Your task to perform on an android device: open chrome and create a bookmark for the current page Image 0: 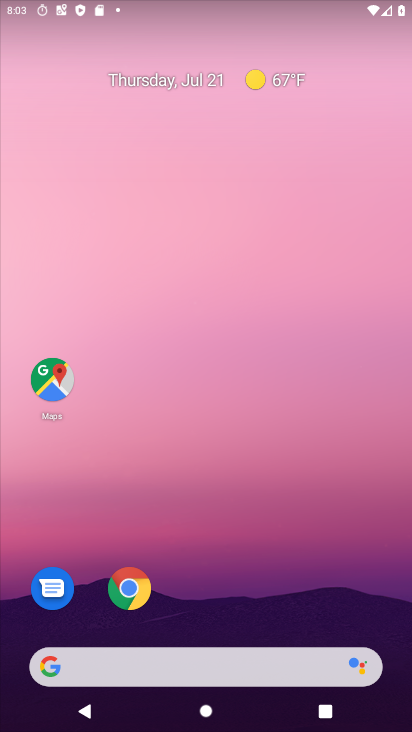
Step 0: drag from (160, 591) to (173, 218)
Your task to perform on an android device: open chrome and create a bookmark for the current page Image 1: 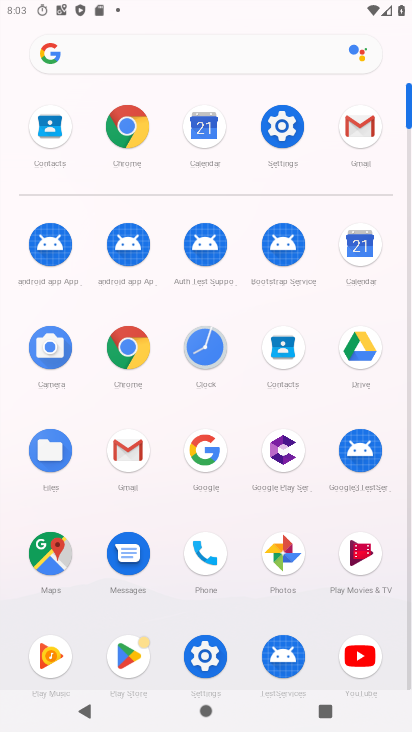
Step 1: click (117, 125)
Your task to perform on an android device: open chrome and create a bookmark for the current page Image 2: 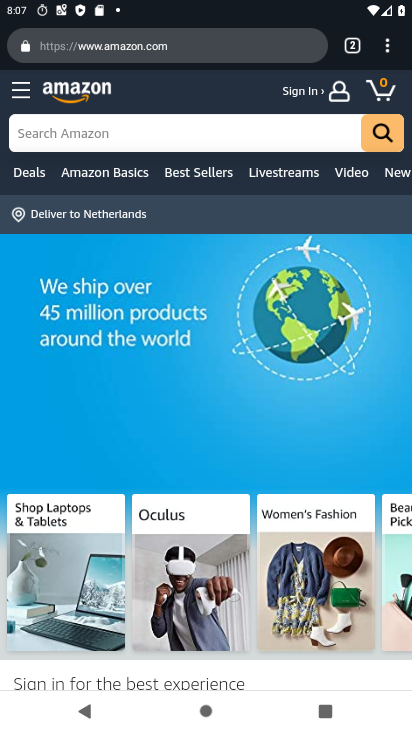
Step 2: click (388, 47)
Your task to perform on an android device: open chrome and create a bookmark for the current page Image 3: 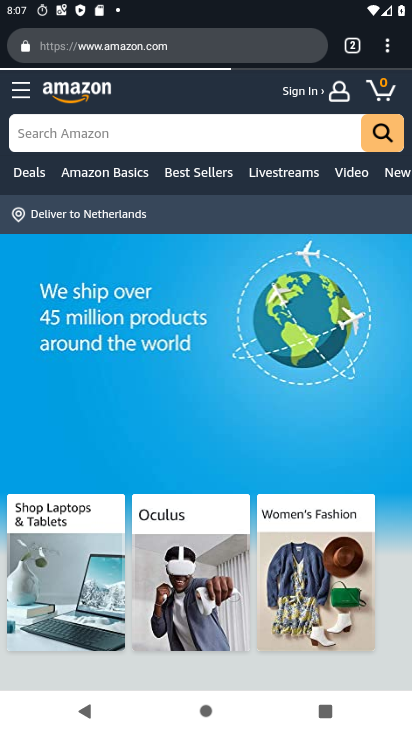
Step 3: click (388, 47)
Your task to perform on an android device: open chrome and create a bookmark for the current page Image 4: 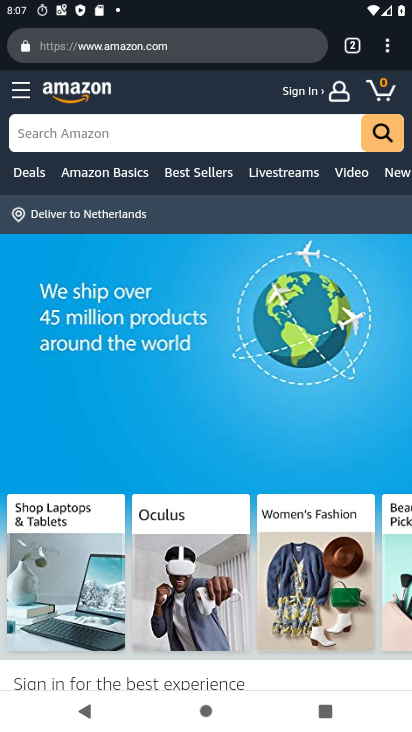
Step 4: click (388, 47)
Your task to perform on an android device: open chrome and create a bookmark for the current page Image 5: 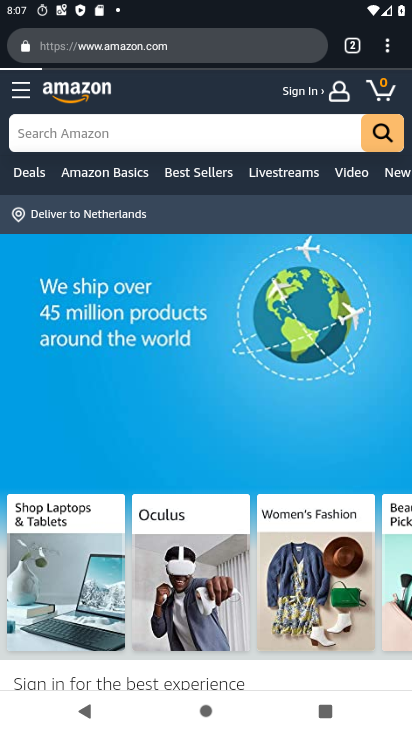
Step 5: click (386, 49)
Your task to perform on an android device: open chrome and create a bookmark for the current page Image 6: 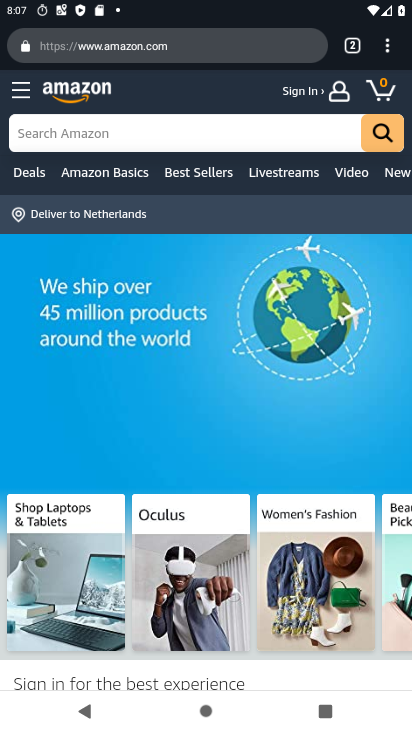
Step 6: click (381, 54)
Your task to perform on an android device: open chrome and create a bookmark for the current page Image 7: 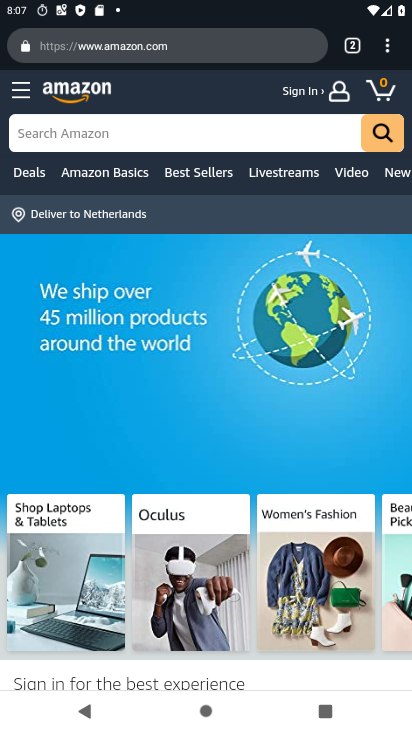
Step 7: task complete